Your task to perform on an android device: Is it going to rain today? Image 0: 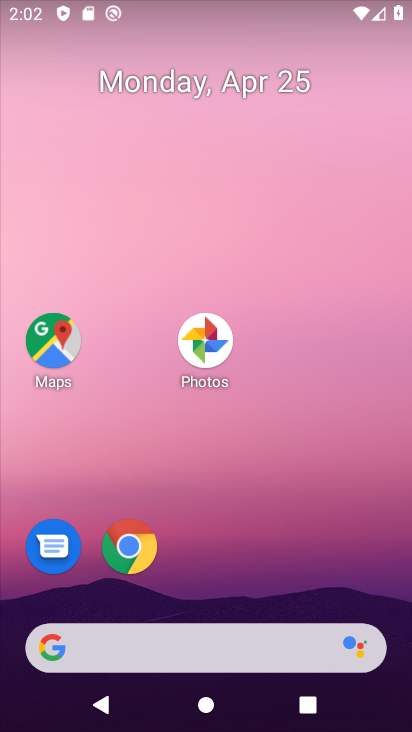
Step 0: drag from (261, 570) to (257, 148)
Your task to perform on an android device: Is it going to rain today? Image 1: 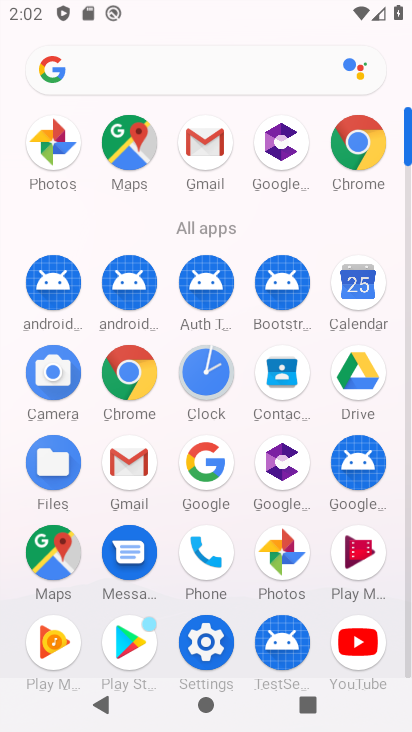
Step 1: click (40, 542)
Your task to perform on an android device: Is it going to rain today? Image 2: 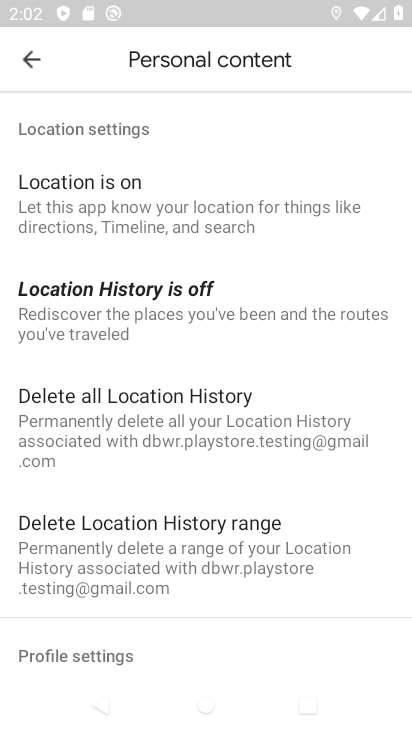
Step 2: click (40, 57)
Your task to perform on an android device: Is it going to rain today? Image 3: 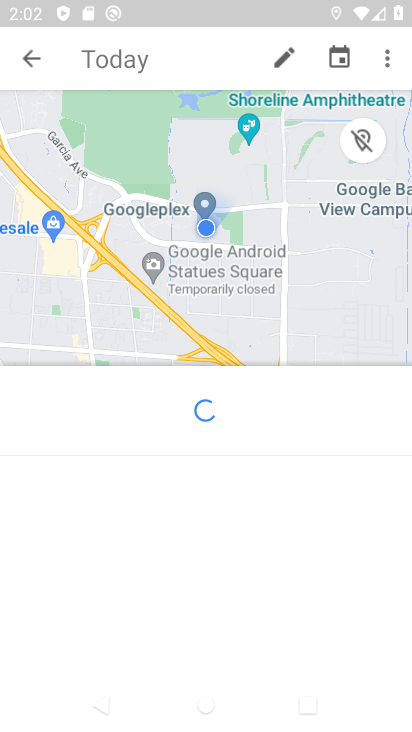
Step 3: click (40, 57)
Your task to perform on an android device: Is it going to rain today? Image 4: 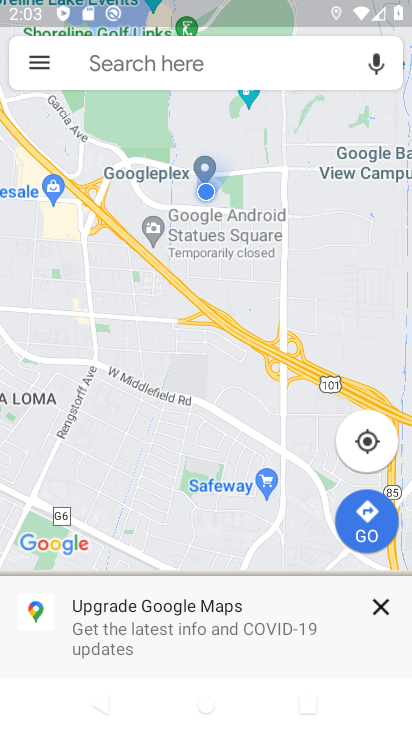
Step 4: press home button
Your task to perform on an android device: Is it going to rain today? Image 5: 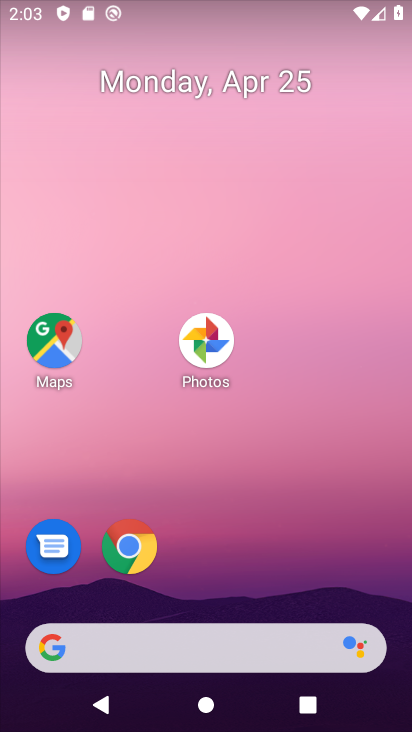
Step 5: drag from (248, 504) to (260, 263)
Your task to perform on an android device: Is it going to rain today? Image 6: 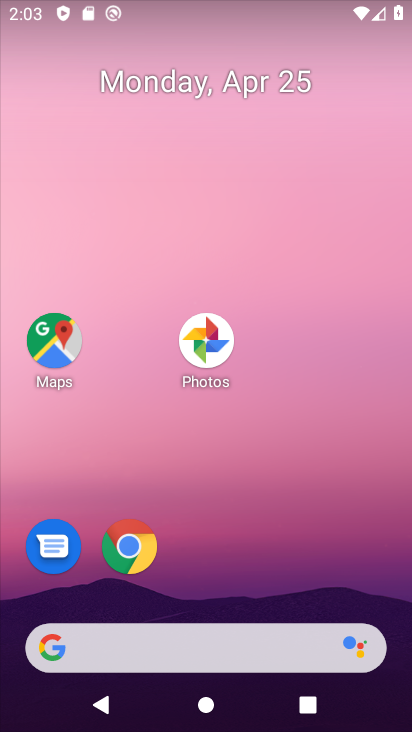
Step 6: click (131, 548)
Your task to perform on an android device: Is it going to rain today? Image 7: 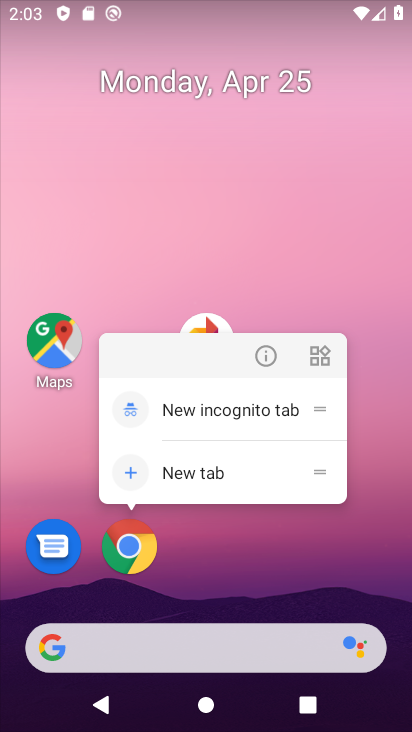
Step 7: click (130, 548)
Your task to perform on an android device: Is it going to rain today? Image 8: 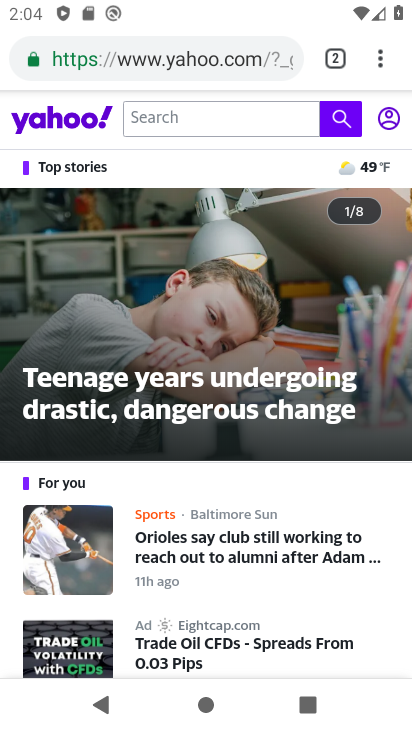
Step 8: click (365, 62)
Your task to perform on an android device: Is it going to rain today? Image 9: 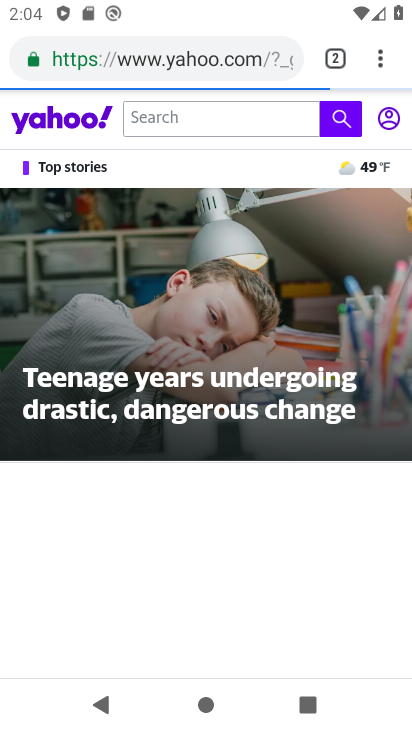
Step 9: click (361, 62)
Your task to perform on an android device: Is it going to rain today? Image 10: 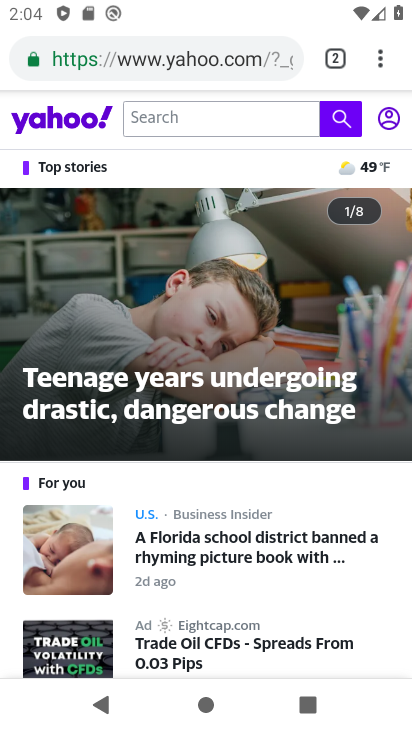
Step 10: click (367, 63)
Your task to perform on an android device: Is it going to rain today? Image 11: 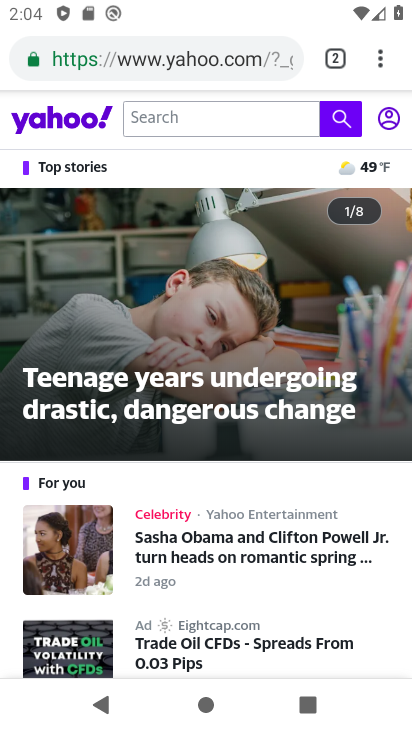
Step 11: click (367, 63)
Your task to perform on an android device: Is it going to rain today? Image 12: 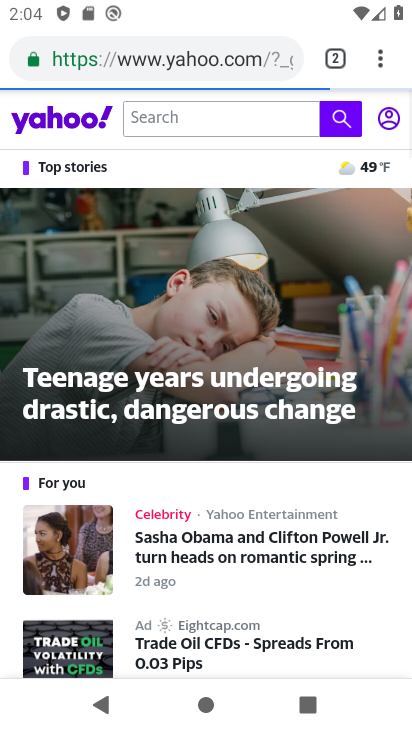
Step 12: click (369, 51)
Your task to perform on an android device: Is it going to rain today? Image 13: 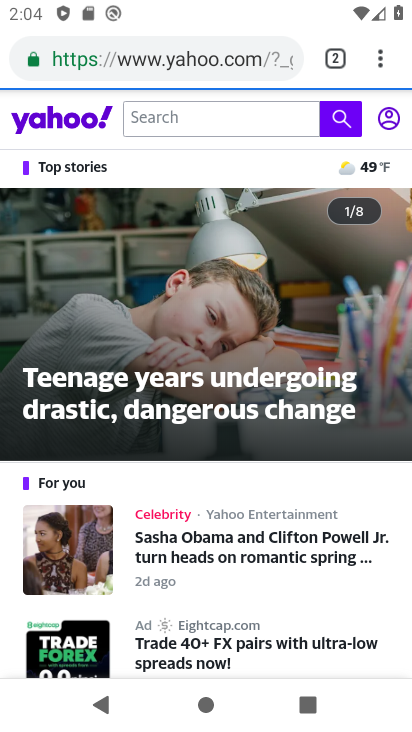
Step 13: click (369, 51)
Your task to perform on an android device: Is it going to rain today? Image 14: 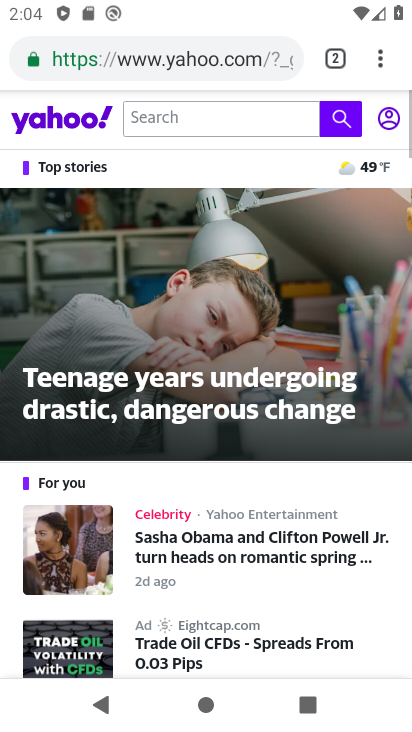
Step 14: click (369, 51)
Your task to perform on an android device: Is it going to rain today? Image 15: 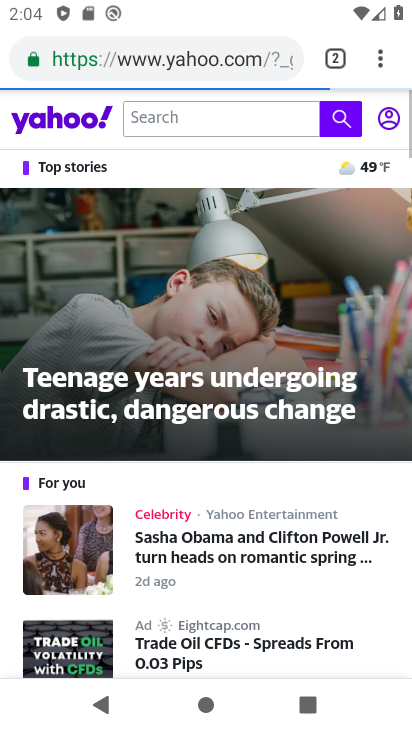
Step 15: click (366, 62)
Your task to perform on an android device: Is it going to rain today? Image 16: 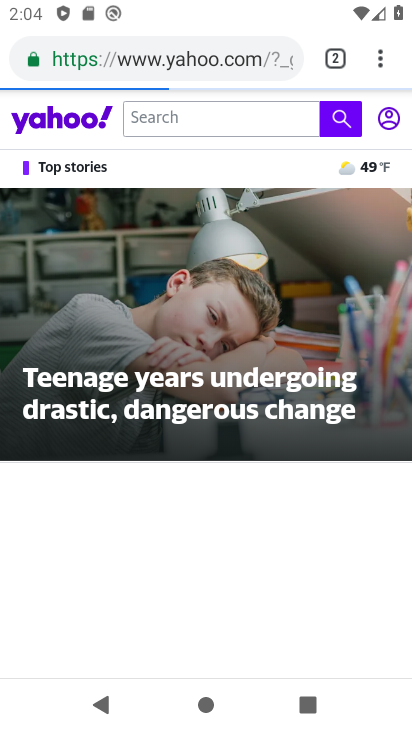
Step 16: click (359, 59)
Your task to perform on an android device: Is it going to rain today? Image 17: 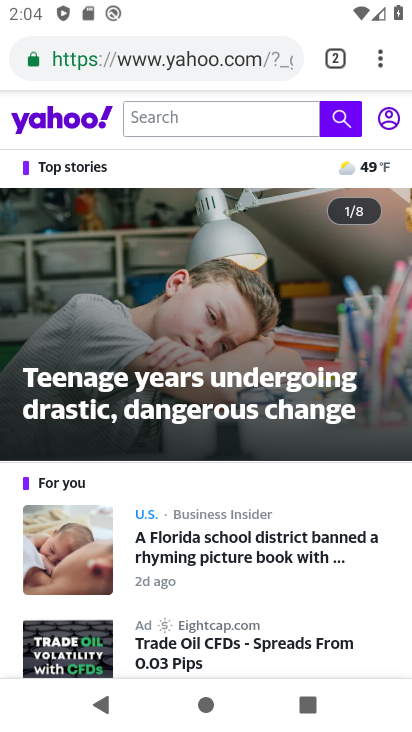
Step 17: click (359, 59)
Your task to perform on an android device: Is it going to rain today? Image 18: 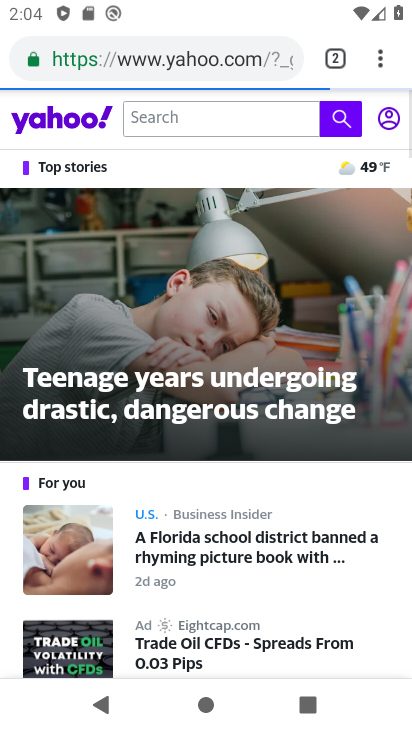
Step 18: click (368, 61)
Your task to perform on an android device: Is it going to rain today? Image 19: 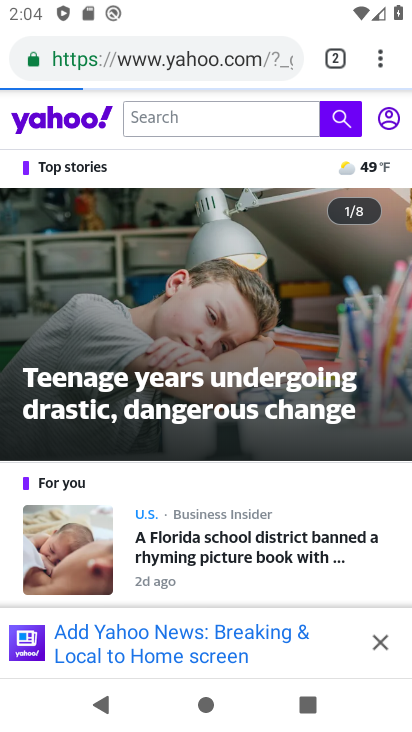
Step 19: click (345, 53)
Your task to perform on an android device: Is it going to rain today? Image 20: 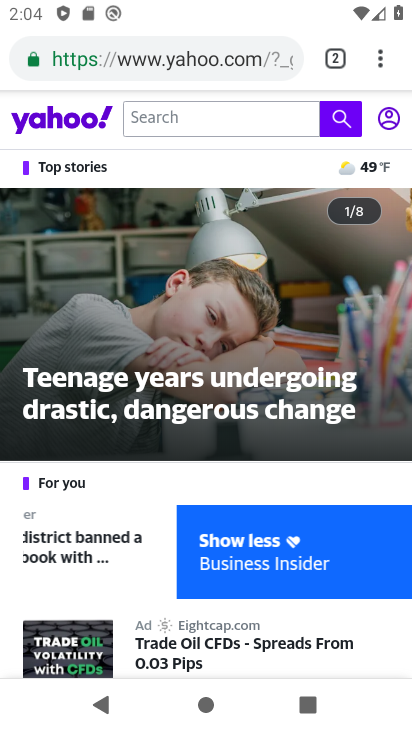
Step 20: click (358, 57)
Your task to perform on an android device: Is it going to rain today? Image 21: 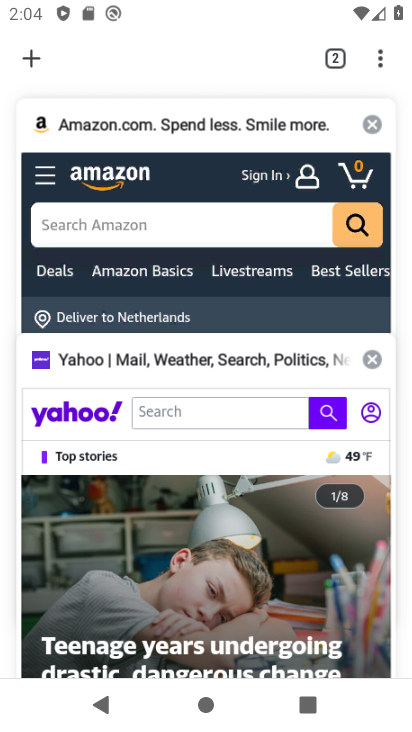
Step 21: click (25, 53)
Your task to perform on an android device: Is it going to rain today? Image 22: 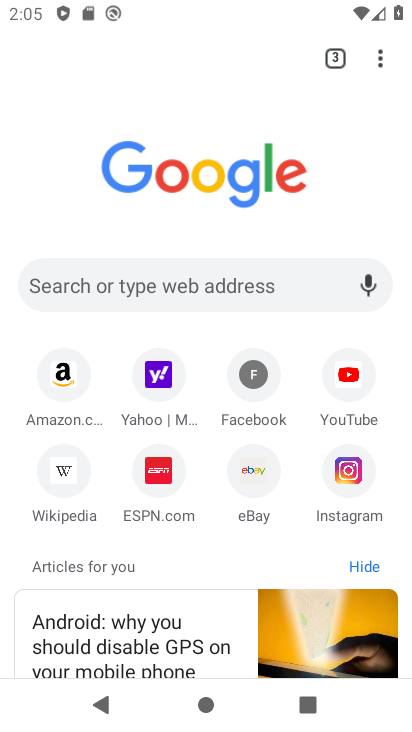
Step 22: click (195, 272)
Your task to perform on an android device: Is it going to rain today? Image 23: 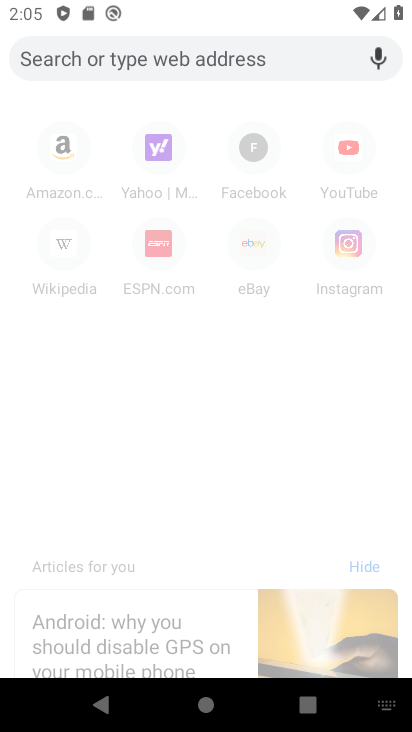
Step 23: type "Is it going to rain today"
Your task to perform on an android device: Is it going to rain today? Image 24: 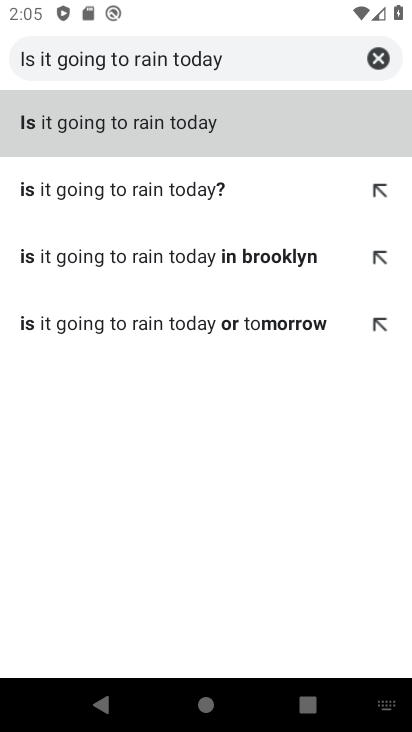
Step 24: click (235, 198)
Your task to perform on an android device: Is it going to rain today? Image 25: 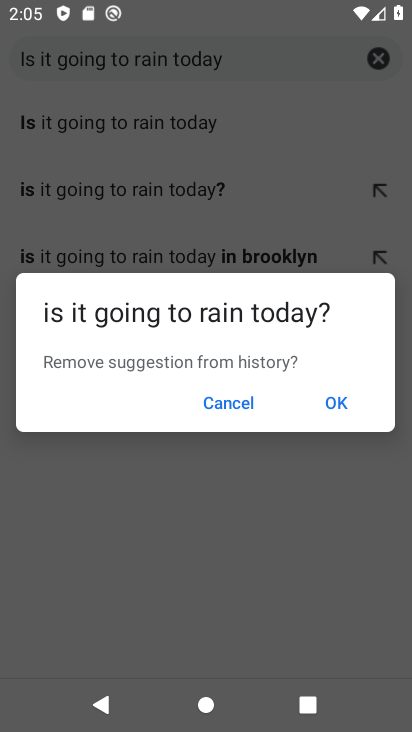
Step 25: click (345, 395)
Your task to perform on an android device: Is it going to rain today? Image 26: 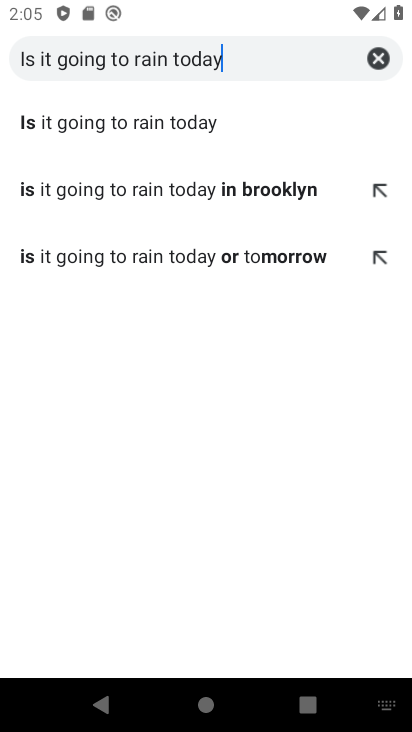
Step 26: click (167, 122)
Your task to perform on an android device: Is it going to rain today? Image 27: 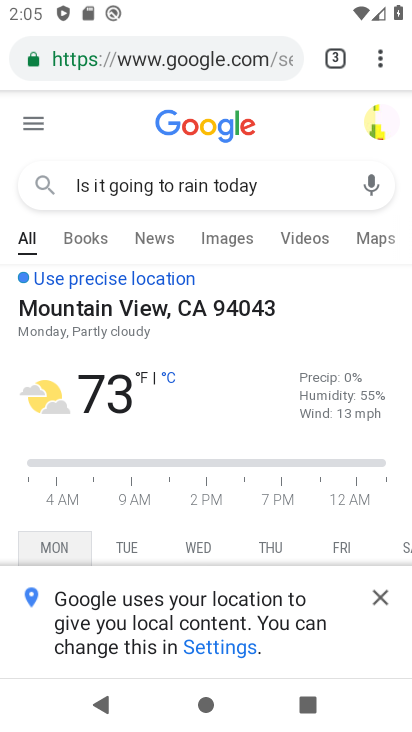
Step 27: task complete